Your task to perform on an android device: Open eBay Image 0: 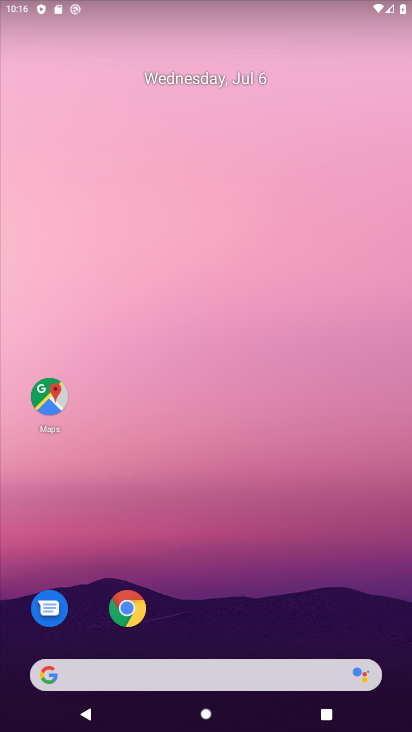
Step 0: click (118, 609)
Your task to perform on an android device: Open eBay Image 1: 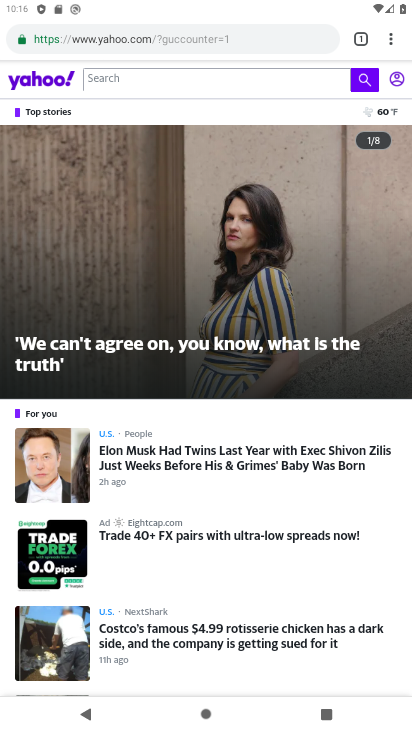
Step 1: click (356, 43)
Your task to perform on an android device: Open eBay Image 2: 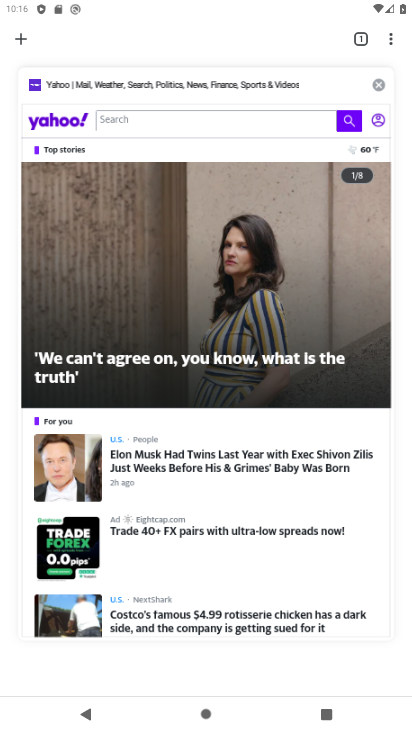
Step 2: click (24, 38)
Your task to perform on an android device: Open eBay Image 3: 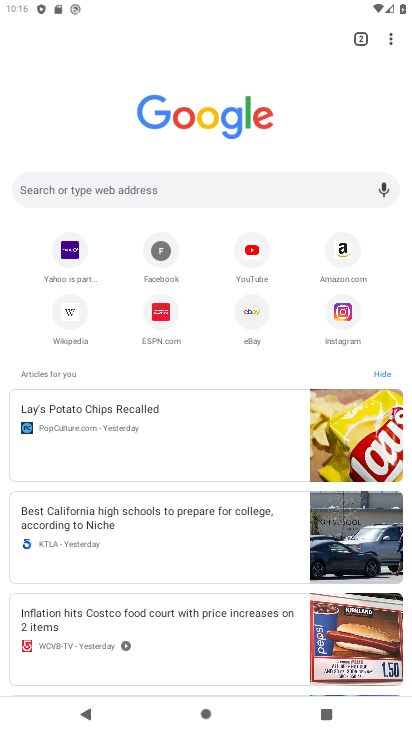
Step 3: click (255, 315)
Your task to perform on an android device: Open eBay Image 4: 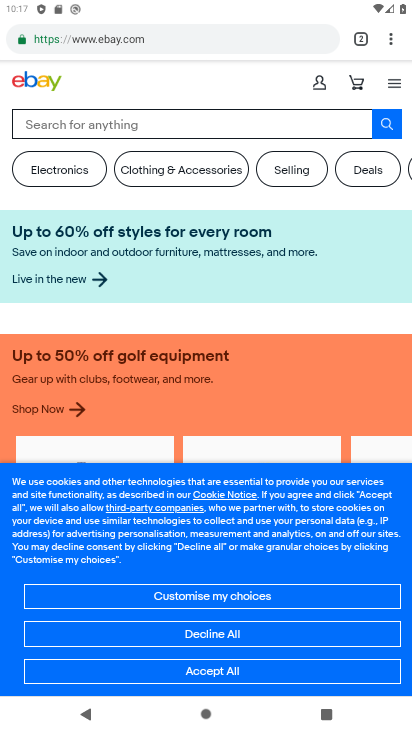
Step 4: task complete